Your task to perform on an android device: Turn off the flashlight Image 0: 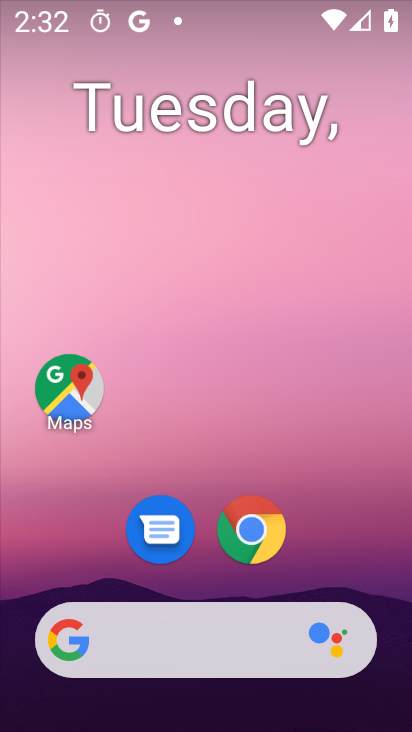
Step 0: drag from (334, 166) to (332, 132)
Your task to perform on an android device: Turn off the flashlight Image 1: 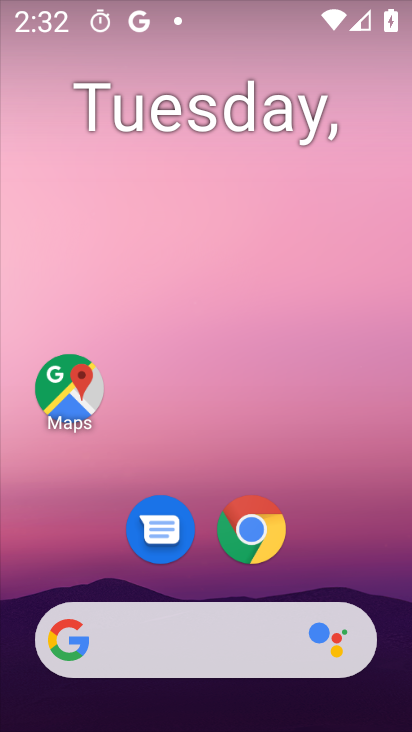
Step 1: click (337, 96)
Your task to perform on an android device: Turn off the flashlight Image 2: 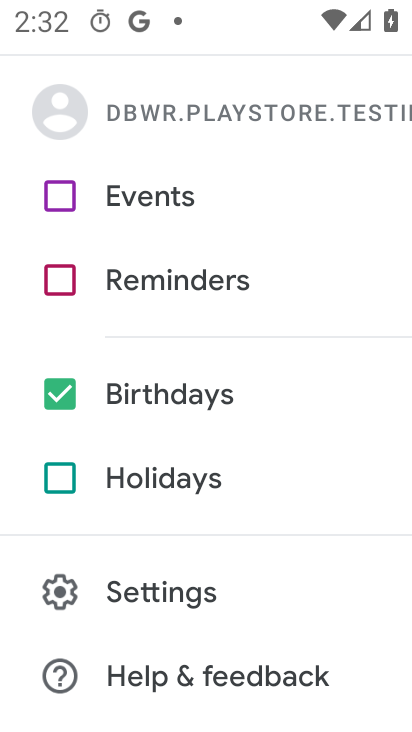
Step 2: press back button
Your task to perform on an android device: Turn off the flashlight Image 3: 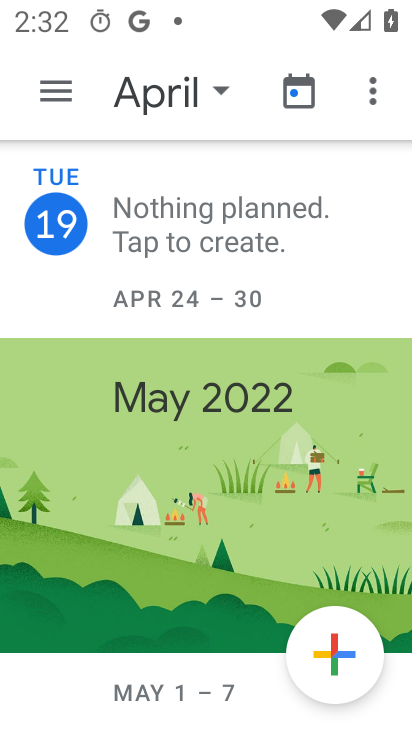
Step 3: click (43, 87)
Your task to perform on an android device: Turn off the flashlight Image 4: 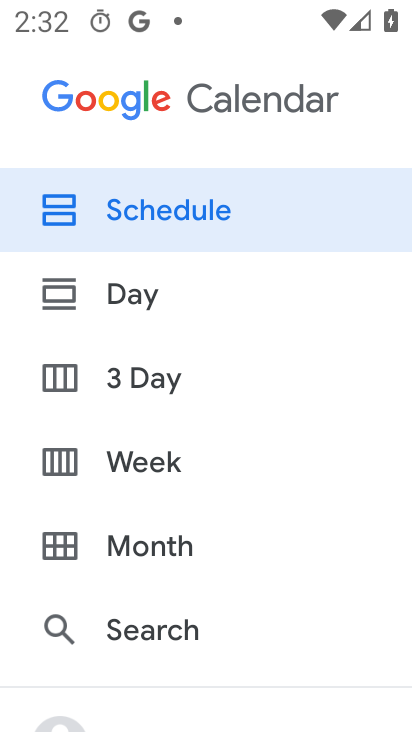
Step 4: press back button
Your task to perform on an android device: Turn off the flashlight Image 5: 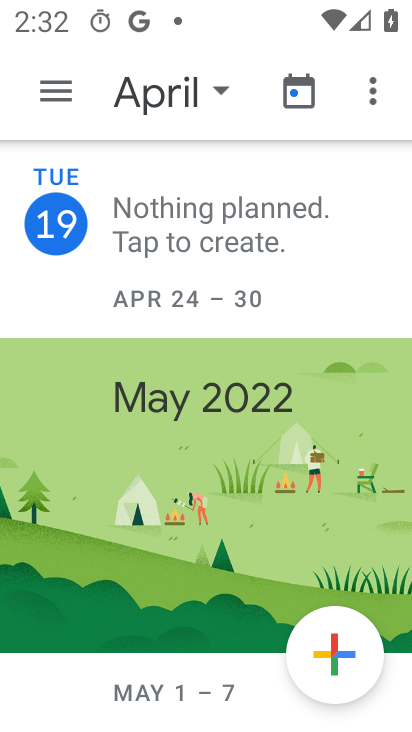
Step 5: press back button
Your task to perform on an android device: Turn off the flashlight Image 6: 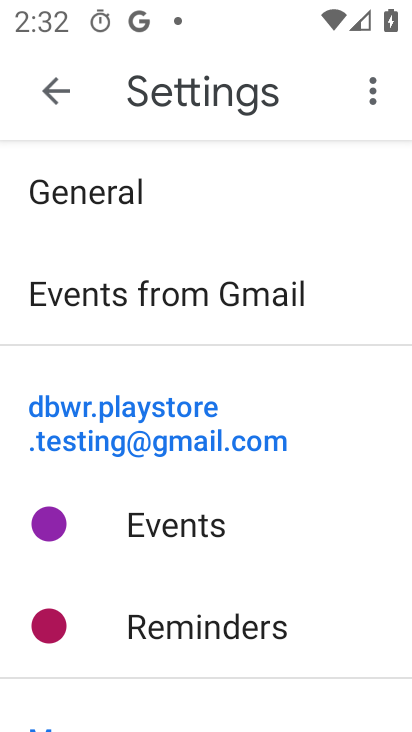
Step 6: press home button
Your task to perform on an android device: Turn off the flashlight Image 7: 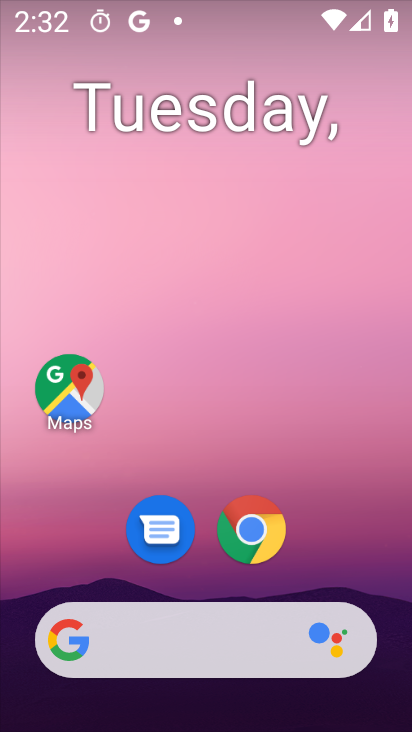
Step 7: drag from (330, 561) to (326, 132)
Your task to perform on an android device: Turn off the flashlight Image 8: 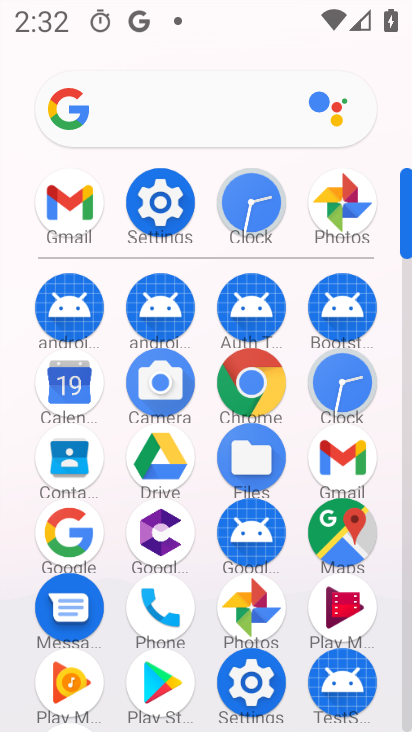
Step 8: click (167, 212)
Your task to perform on an android device: Turn off the flashlight Image 9: 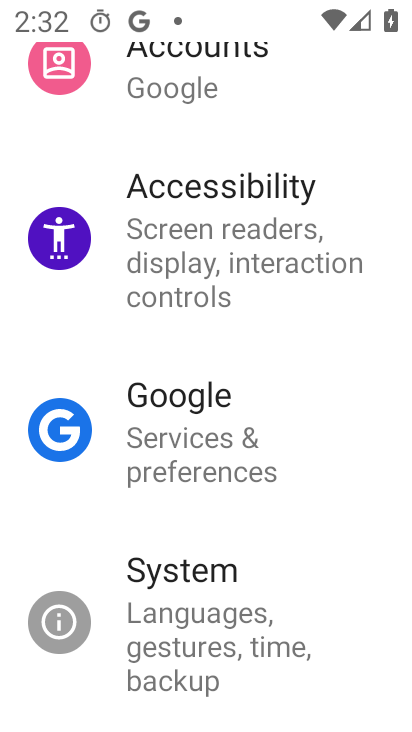
Step 9: click (154, 582)
Your task to perform on an android device: Turn off the flashlight Image 10: 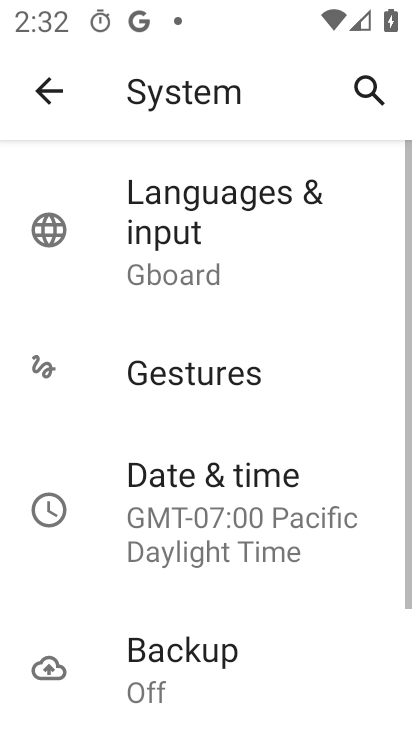
Step 10: task complete